Your task to perform on an android device: View the shopping cart on bestbuy. Image 0: 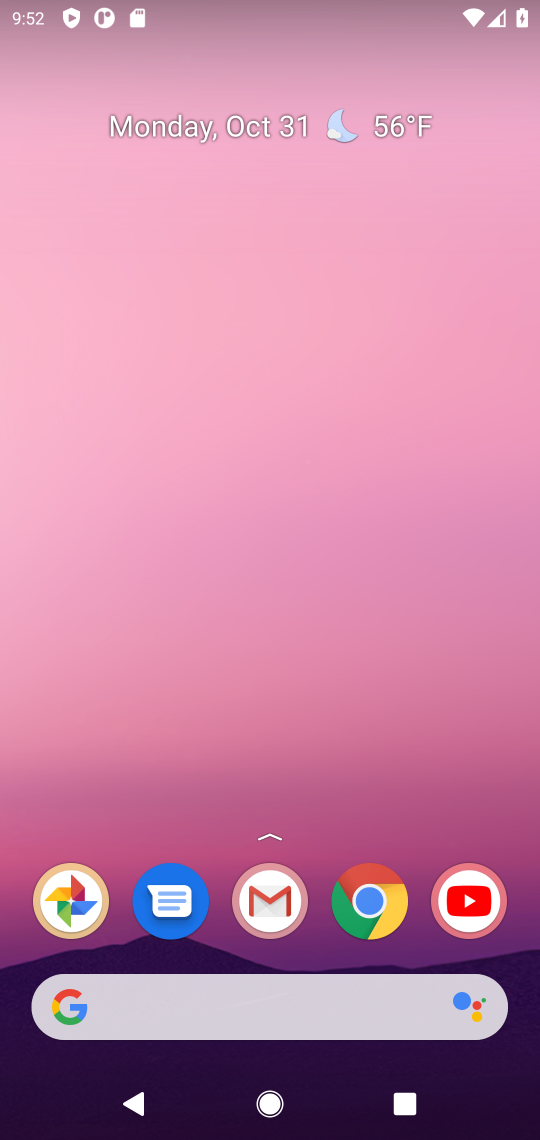
Step 0: drag from (213, 921) to (221, 110)
Your task to perform on an android device: View the shopping cart on bestbuy. Image 1: 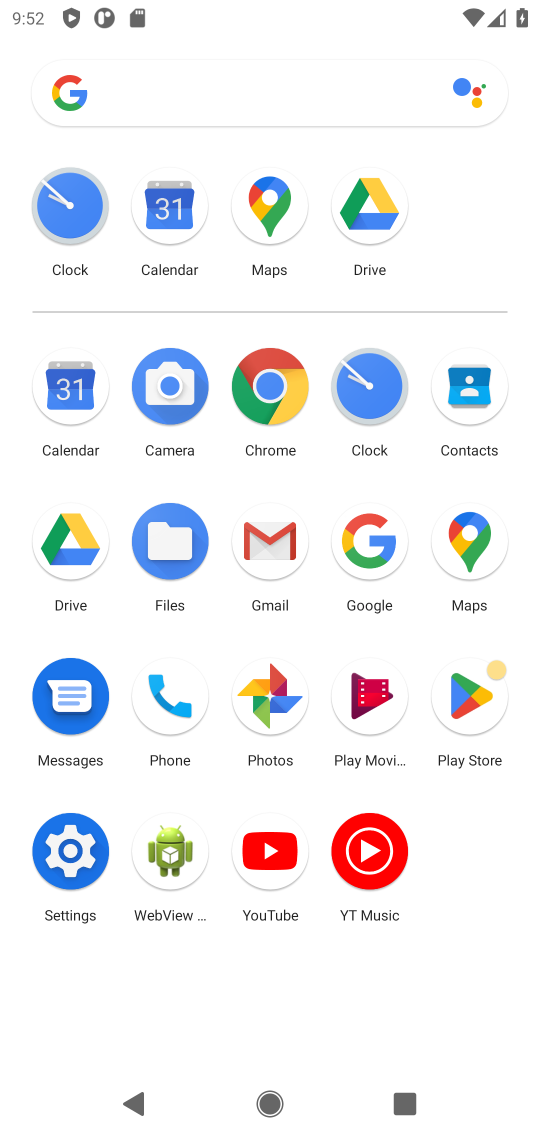
Step 1: click (365, 549)
Your task to perform on an android device: View the shopping cart on bestbuy. Image 2: 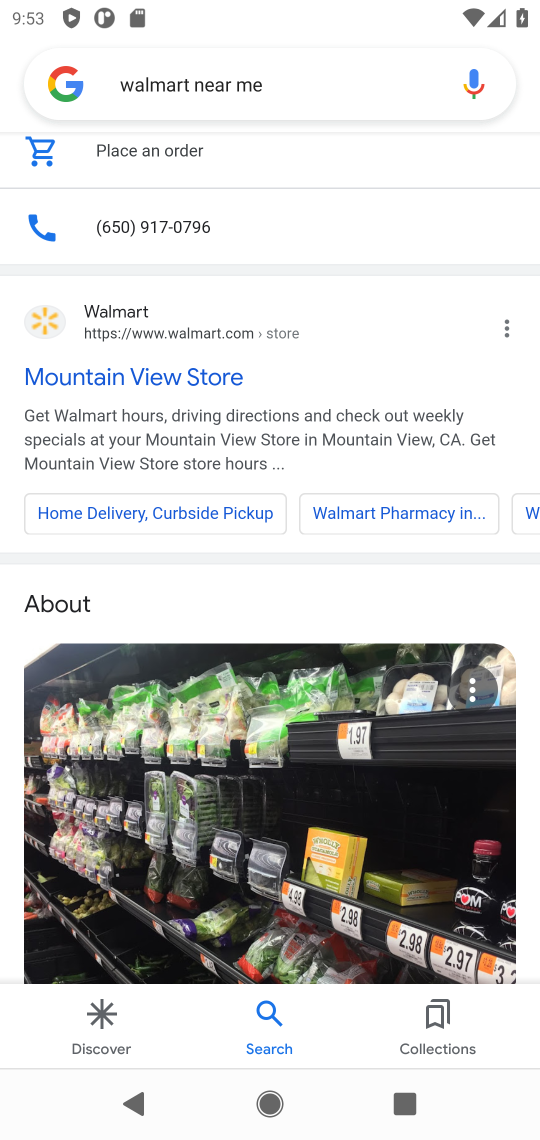
Step 2: click (264, 85)
Your task to perform on an android device: View the shopping cart on bestbuy. Image 3: 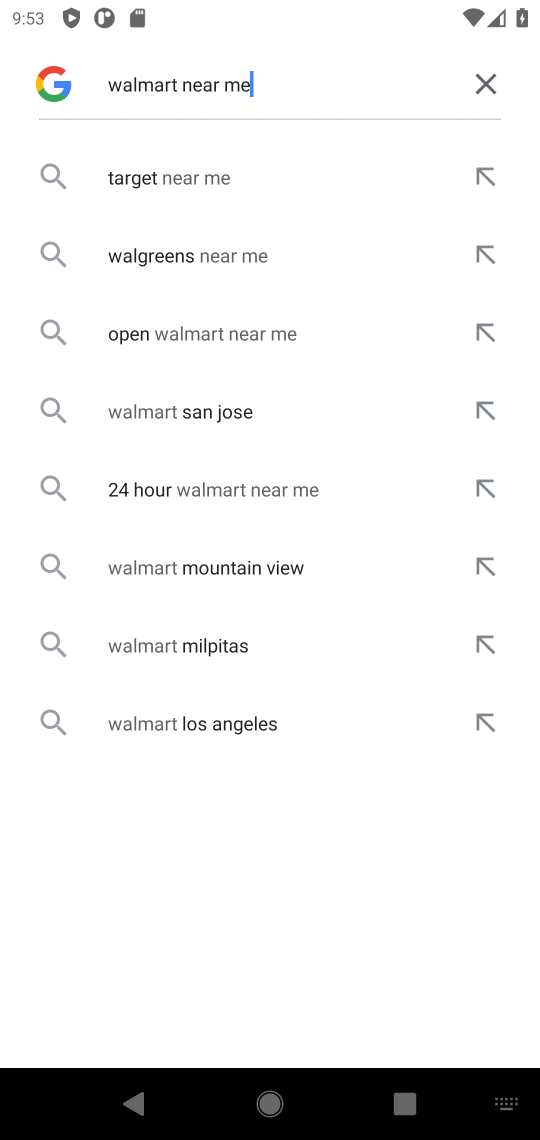
Step 3: click (483, 69)
Your task to perform on an android device: View the shopping cart on bestbuy. Image 4: 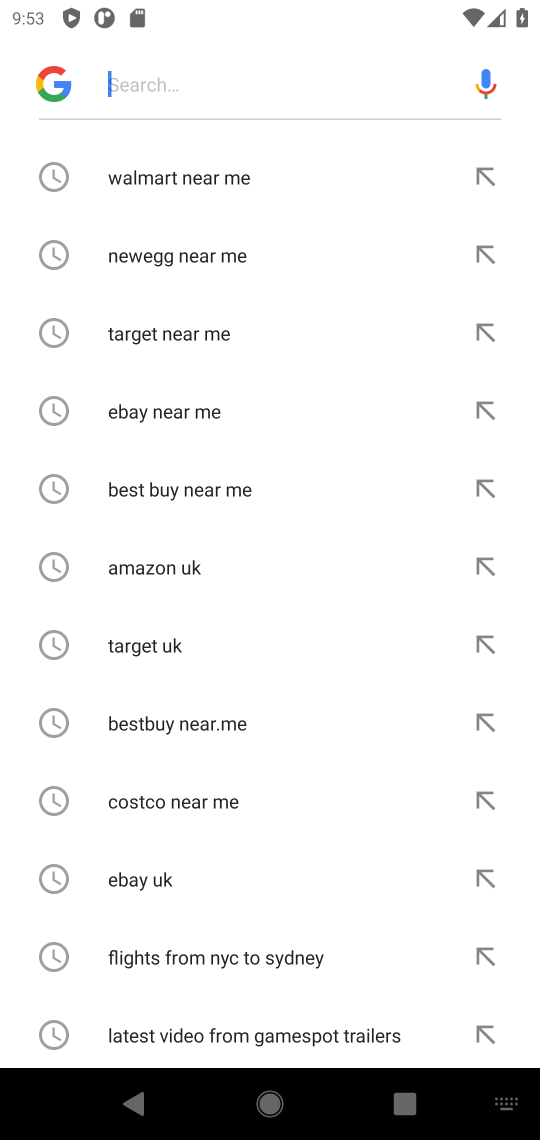
Step 4: click (229, 91)
Your task to perform on an android device: View the shopping cart on bestbuy. Image 5: 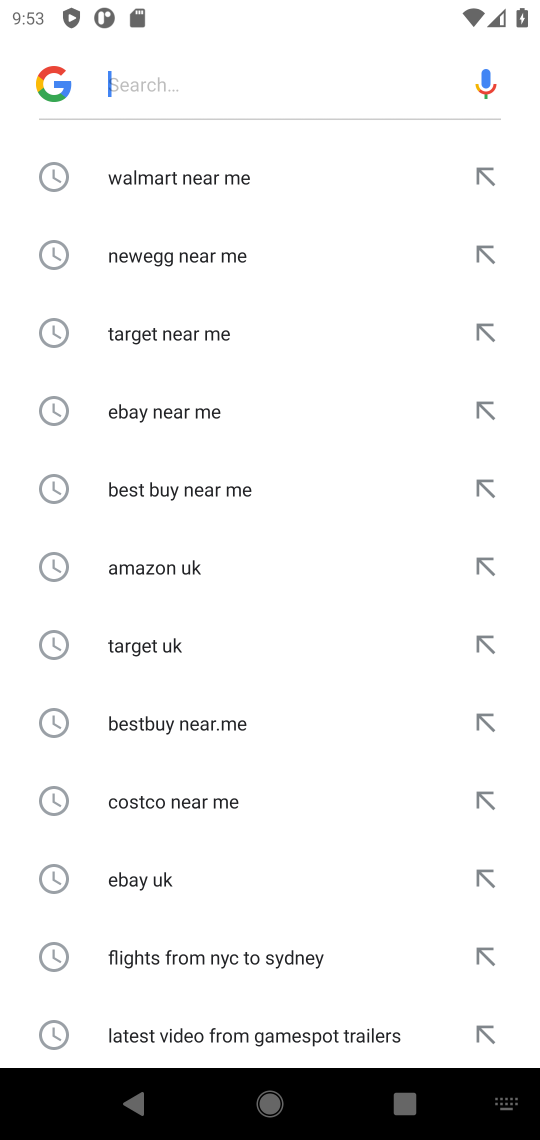
Step 5: type "bestbuy "
Your task to perform on an android device: View the shopping cart on bestbuy. Image 6: 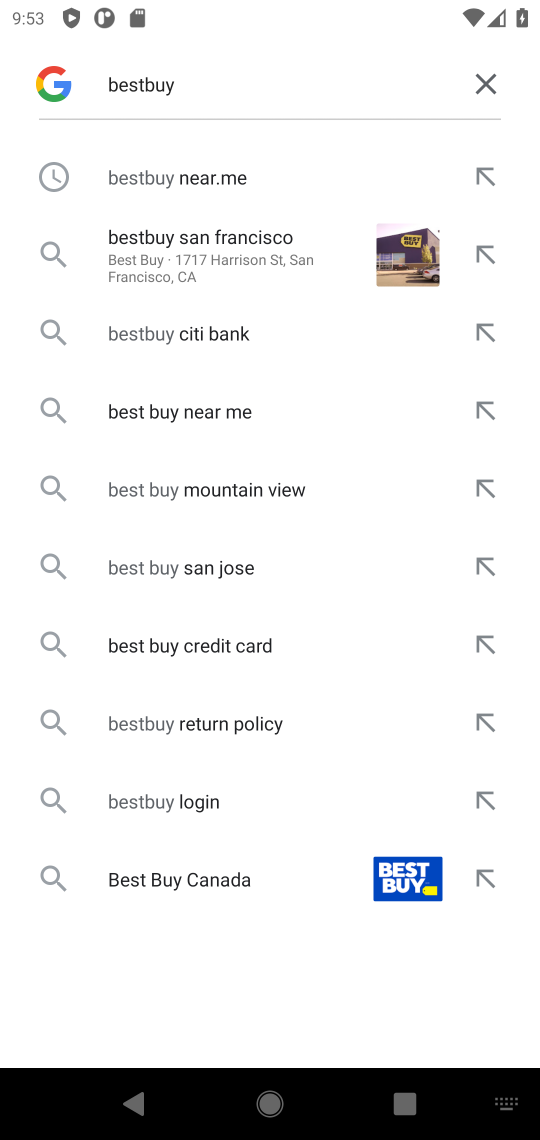
Step 6: click (183, 173)
Your task to perform on an android device: View the shopping cart on bestbuy. Image 7: 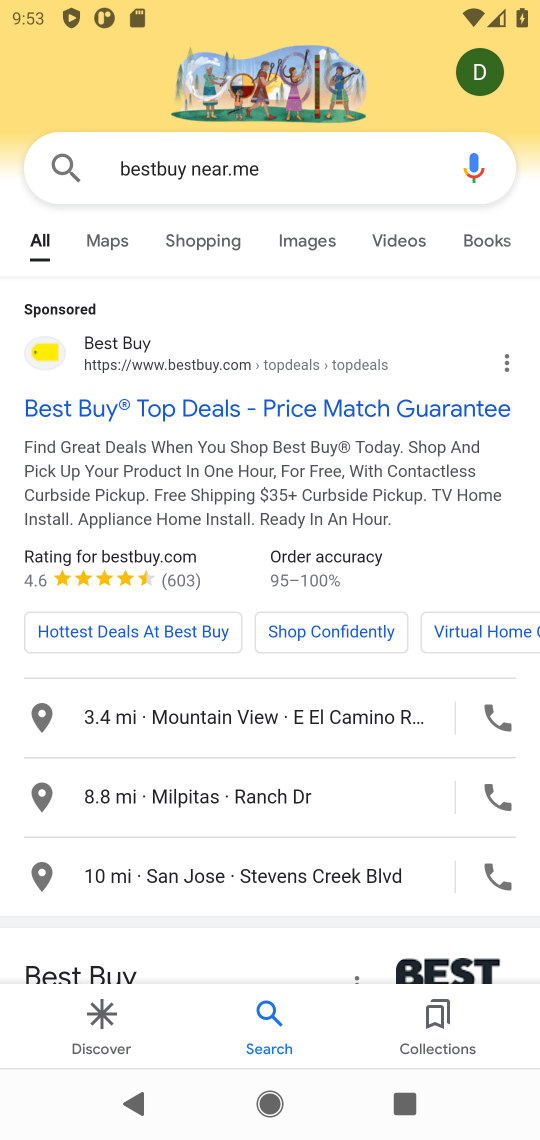
Step 7: click (50, 356)
Your task to perform on an android device: View the shopping cart on bestbuy. Image 8: 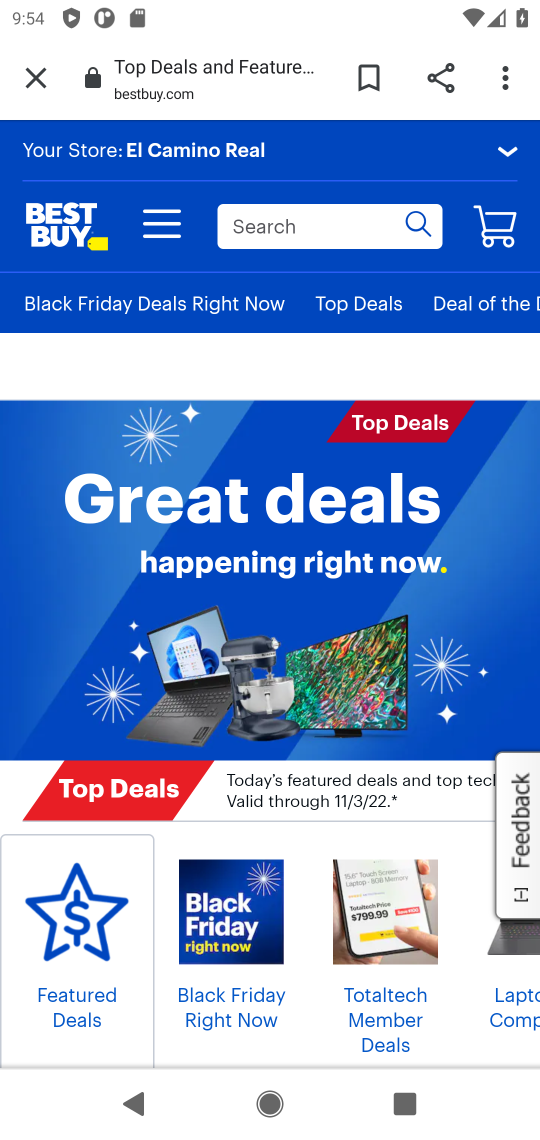
Step 8: click (485, 225)
Your task to perform on an android device: View the shopping cart on bestbuy. Image 9: 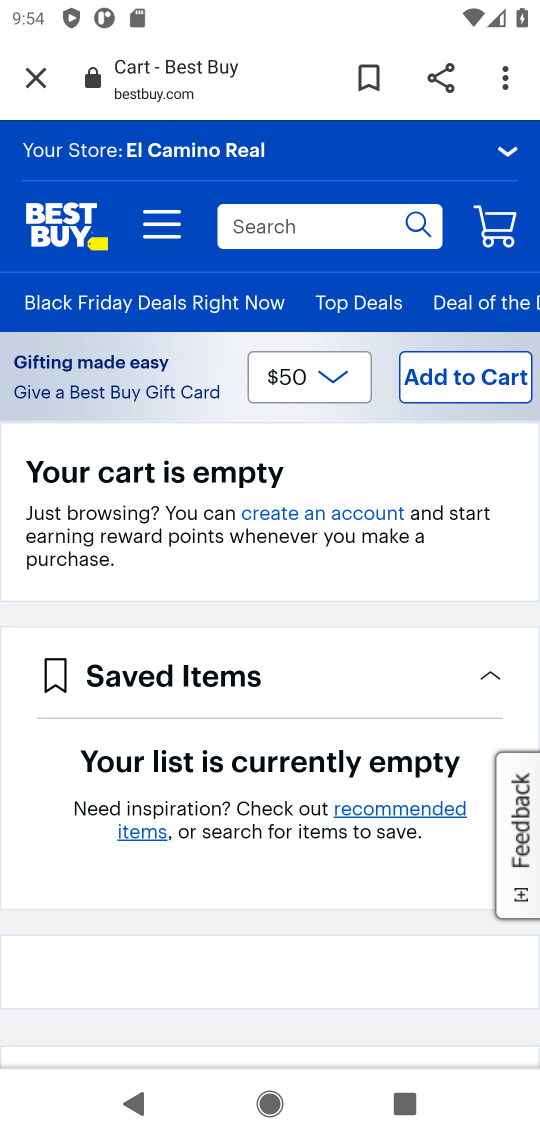
Step 9: task complete